Your task to perform on an android device: Open Google Maps Image 0: 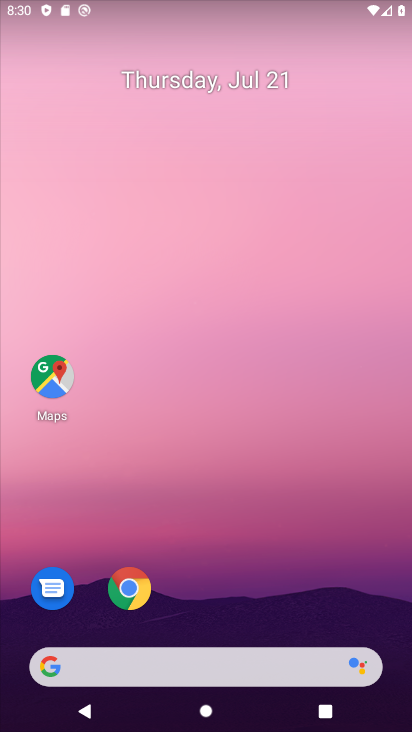
Step 0: drag from (286, 731) to (170, 242)
Your task to perform on an android device: Open Google Maps Image 1: 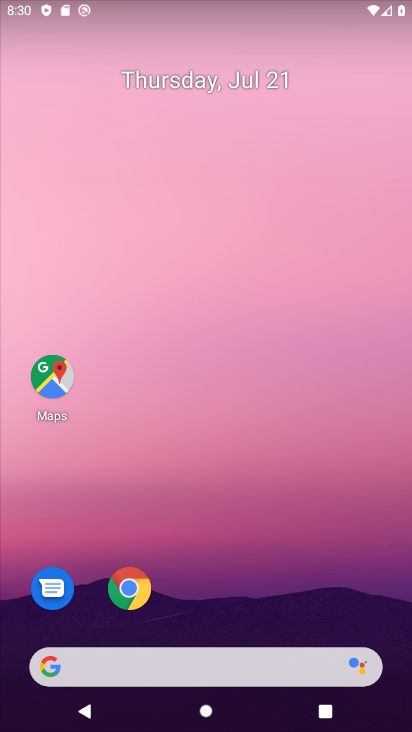
Step 1: drag from (197, 614) to (157, 121)
Your task to perform on an android device: Open Google Maps Image 2: 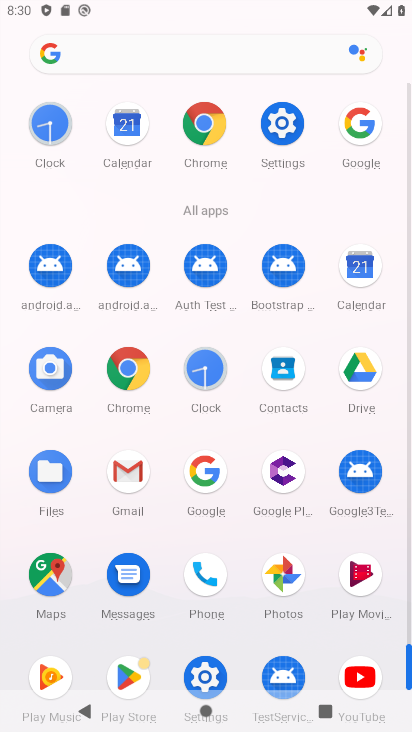
Step 2: click (51, 571)
Your task to perform on an android device: Open Google Maps Image 3: 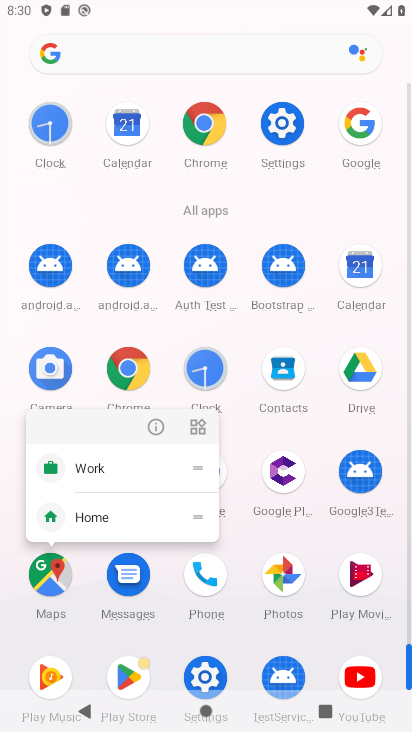
Step 3: click (41, 558)
Your task to perform on an android device: Open Google Maps Image 4: 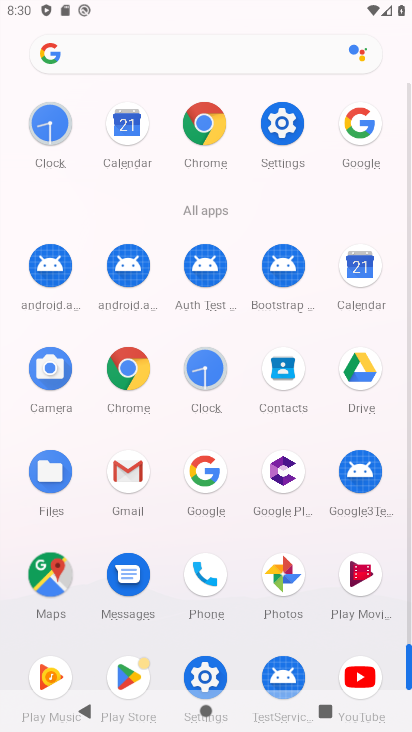
Step 4: click (44, 561)
Your task to perform on an android device: Open Google Maps Image 5: 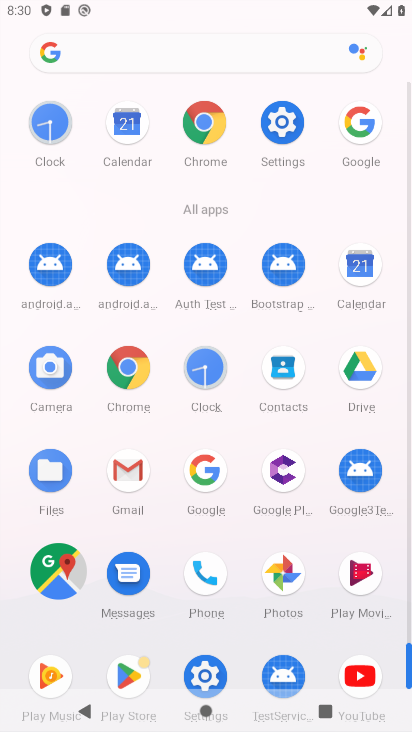
Step 5: click (45, 560)
Your task to perform on an android device: Open Google Maps Image 6: 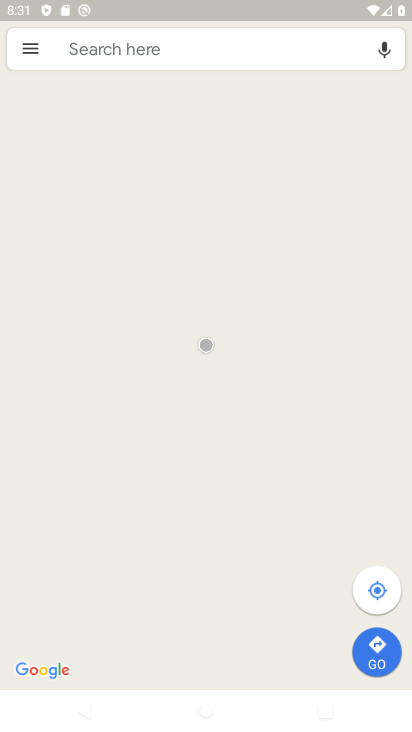
Step 6: task complete